Your task to perform on an android device: Search for the best rated tool bag on Lowe's. Image 0: 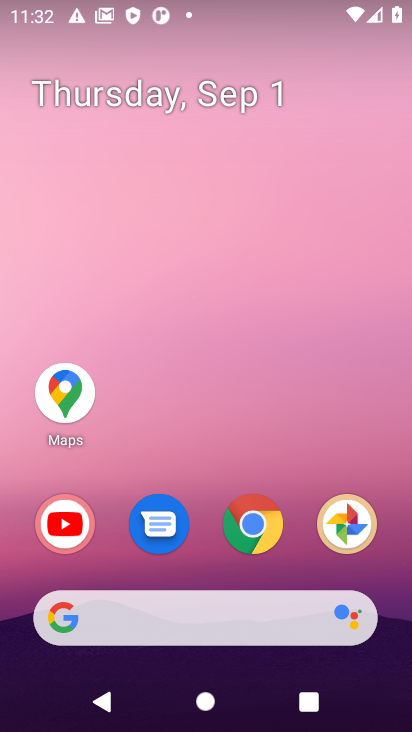
Step 0: click (240, 518)
Your task to perform on an android device: Search for the best rated tool bag on Lowe's. Image 1: 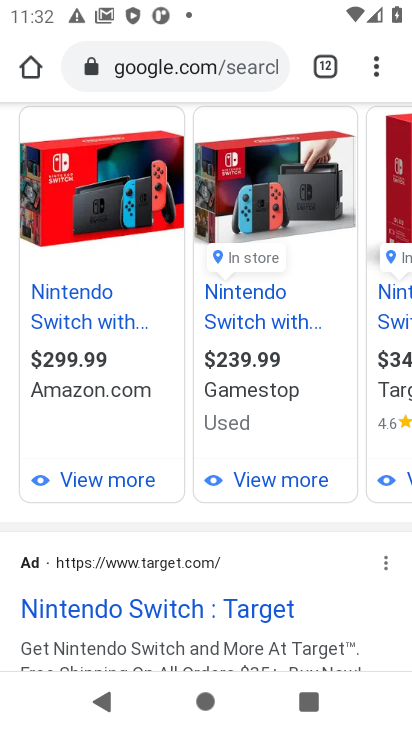
Step 1: click (322, 62)
Your task to perform on an android device: Search for the best rated tool bag on Lowe's. Image 2: 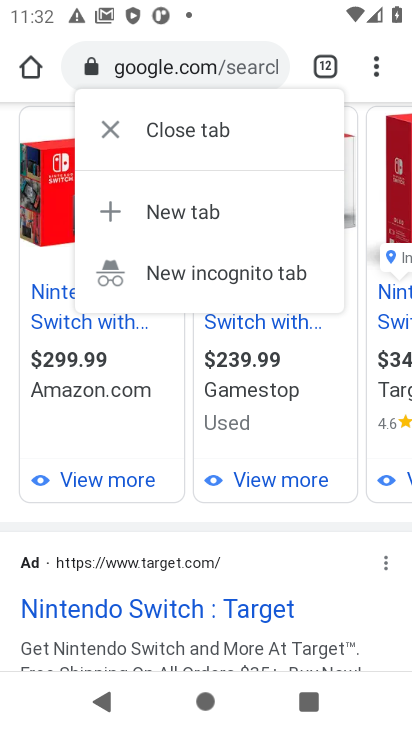
Step 2: click (326, 64)
Your task to perform on an android device: Search for the best rated tool bag on Lowe's. Image 3: 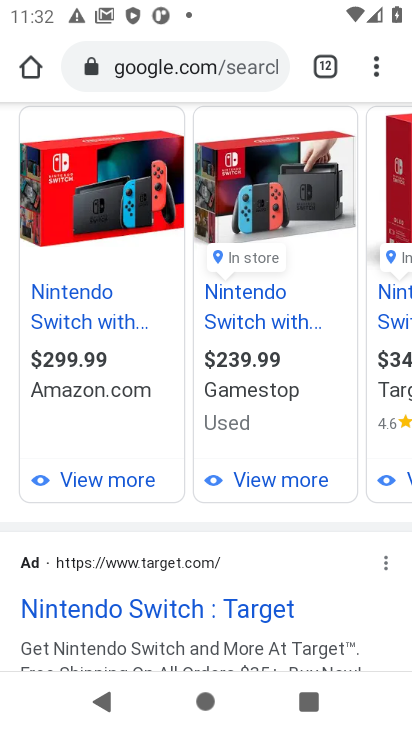
Step 3: click (326, 64)
Your task to perform on an android device: Search for the best rated tool bag on Lowe's. Image 4: 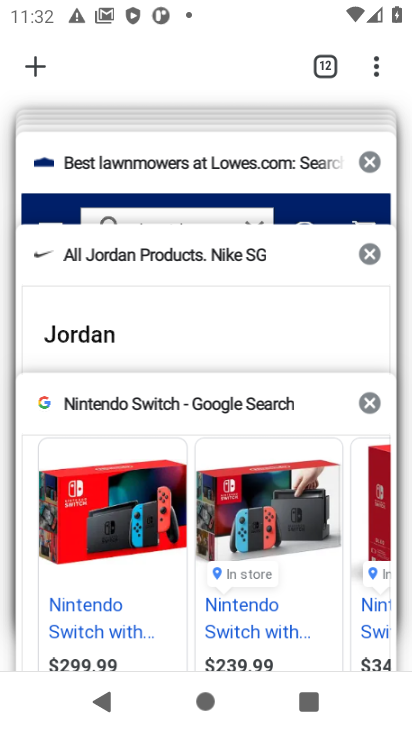
Step 4: drag from (250, 231) to (267, 359)
Your task to perform on an android device: Search for the best rated tool bag on Lowe's. Image 5: 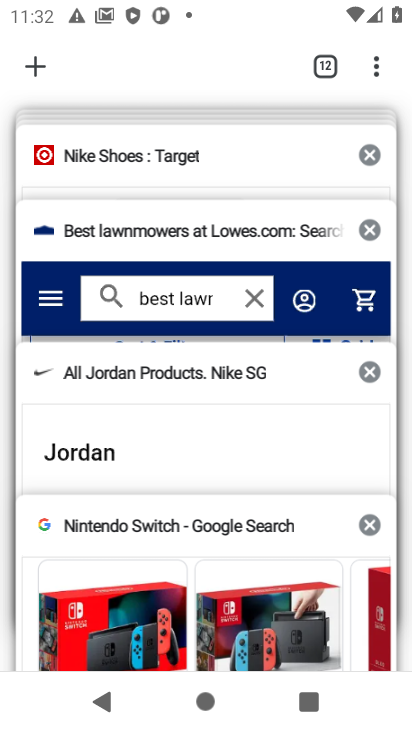
Step 5: click (208, 283)
Your task to perform on an android device: Search for the best rated tool bag on Lowe's. Image 6: 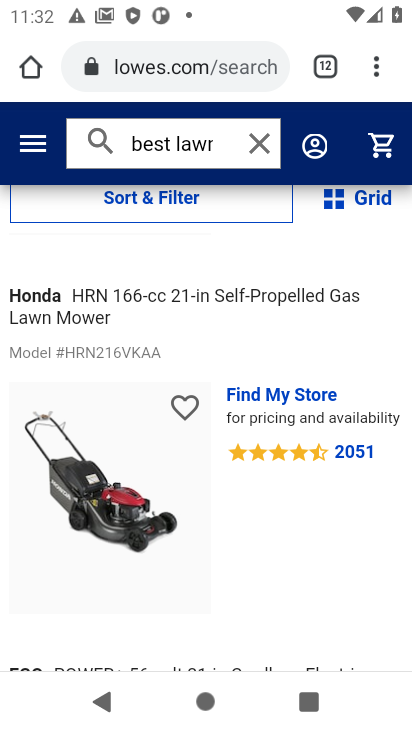
Step 6: click (216, 141)
Your task to perform on an android device: Search for the best rated tool bag on Lowe's. Image 7: 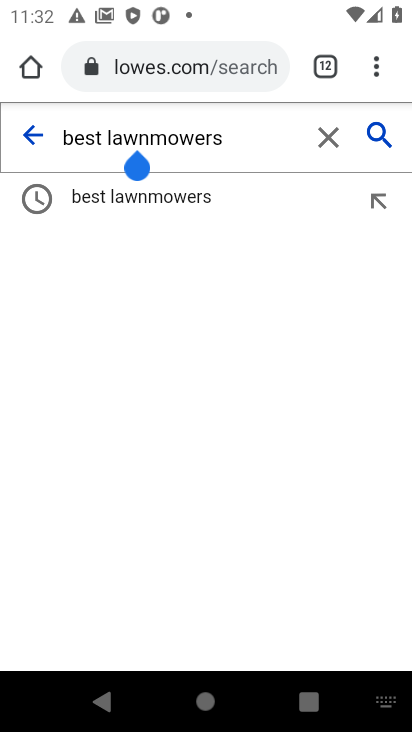
Step 7: click (326, 142)
Your task to perform on an android device: Search for the best rated tool bag on Lowe's. Image 8: 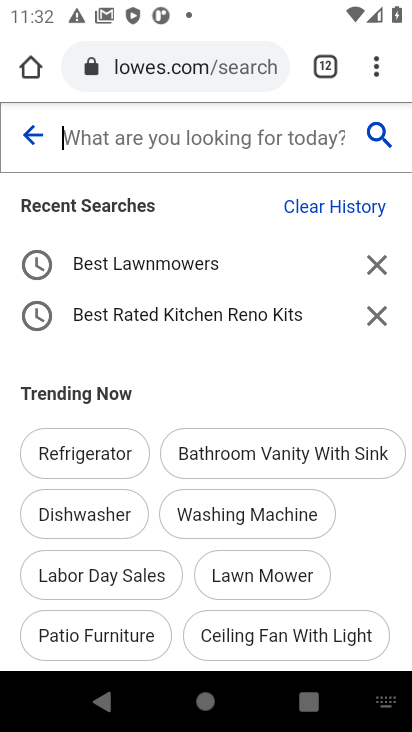
Step 8: type "best rated tool bag"
Your task to perform on an android device: Search for the best rated tool bag on Lowe's. Image 9: 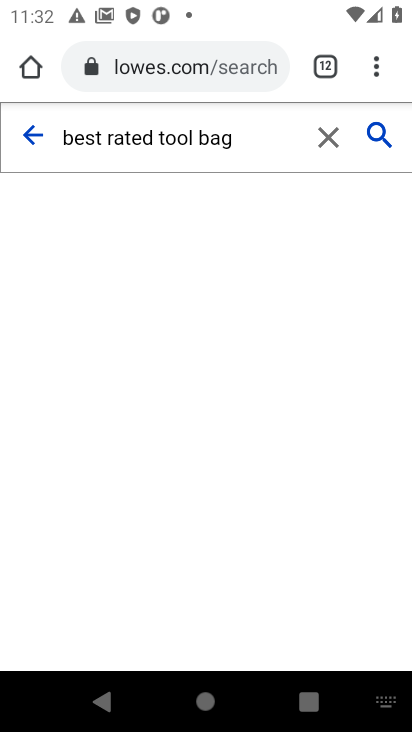
Step 9: click (380, 129)
Your task to perform on an android device: Search for the best rated tool bag on Lowe's. Image 10: 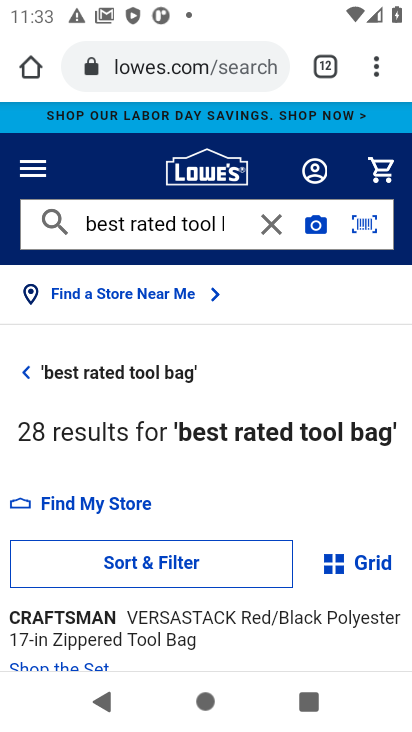
Step 10: task complete